Your task to perform on an android device: Go to Yahoo.com Image 0: 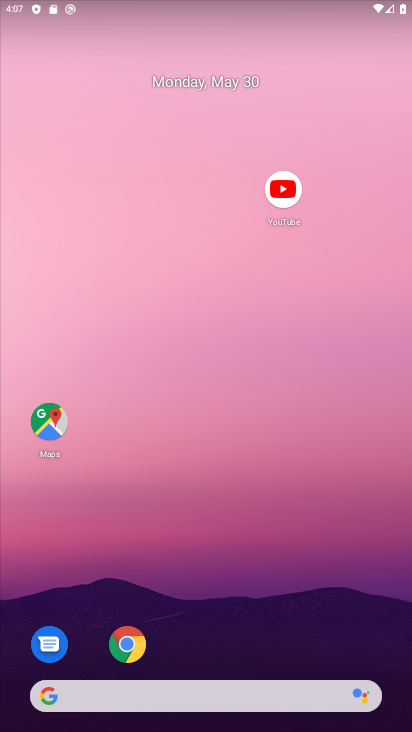
Step 0: click (132, 648)
Your task to perform on an android device: Go to Yahoo.com Image 1: 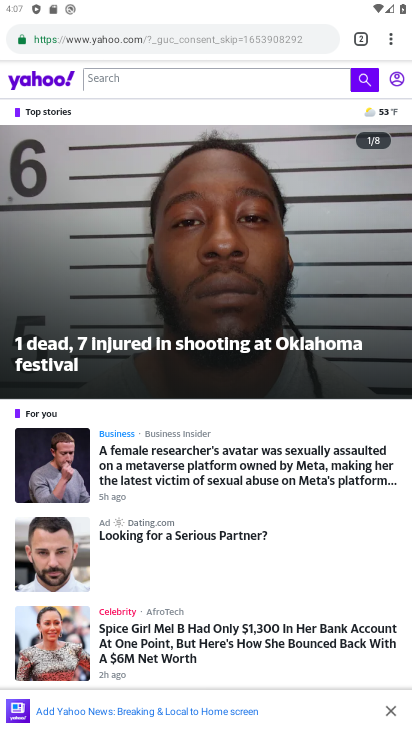
Step 1: task complete